Your task to perform on an android device: open a bookmark in the chrome app Image 0: 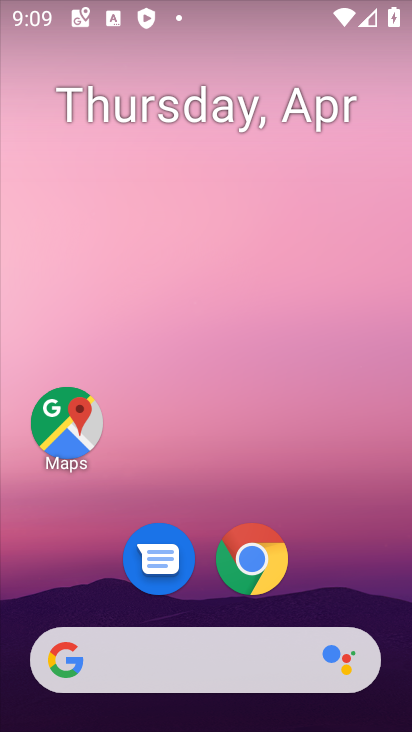
Step 0: click (228, 568)
Your task to perform on an android device: open a bookmark in the chrome app Image 1: 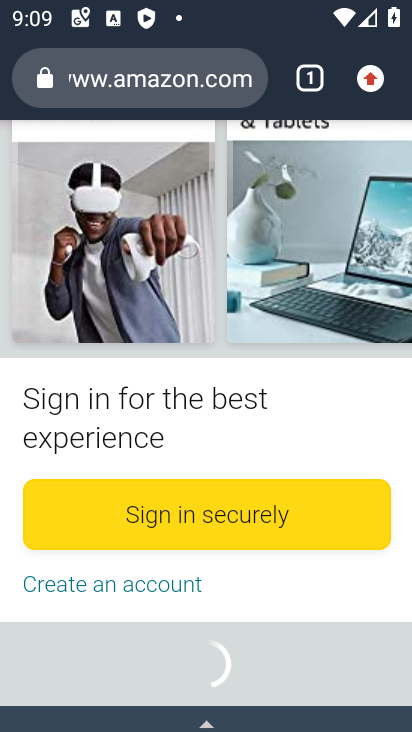
Step 1: click (363, 76)
Your task to perform on an android device: open a bookmark in the chrome app Image 2: 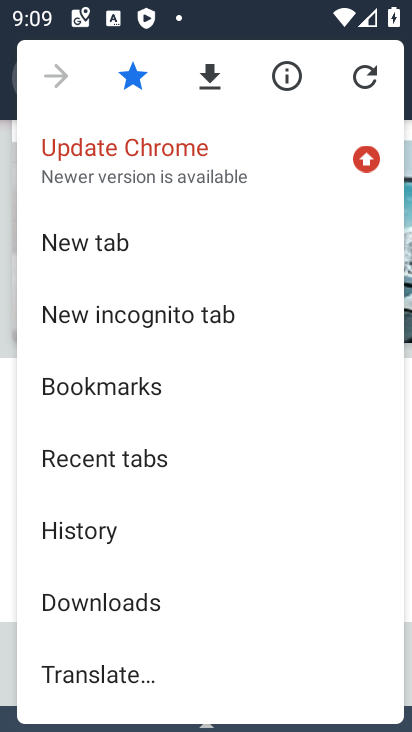
Step 2: click (182, 388)
Your task to perform on an android device: open a bookmark in the chrome app Image 3: 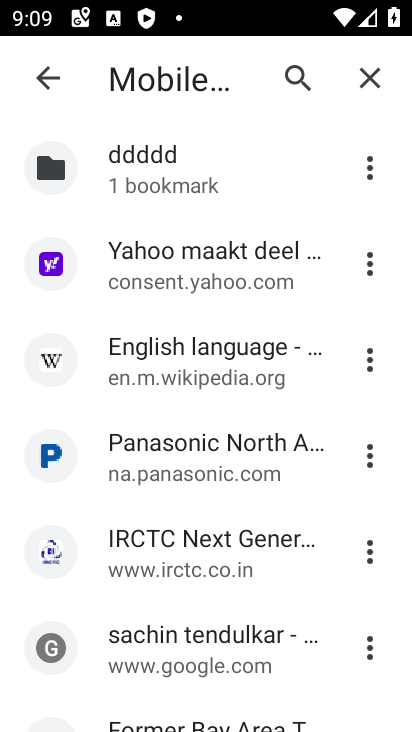
Step 3: click (205, 548)
Your task to perform on an android device: open a bookmark in the chrome app Image 4: 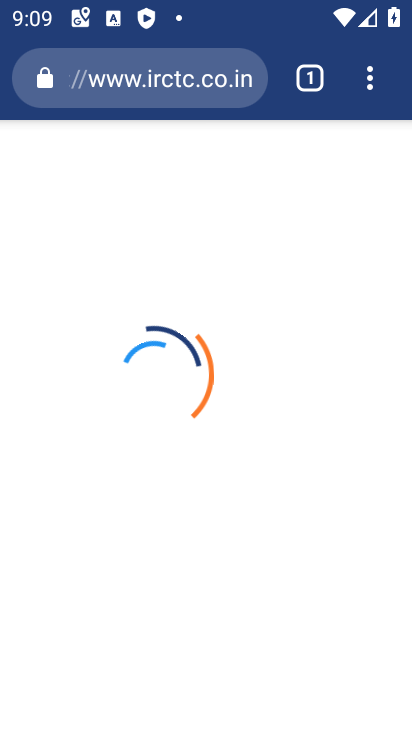
Step 4: task complete